Your task to perform on an android device: Open internet settings Image 0: 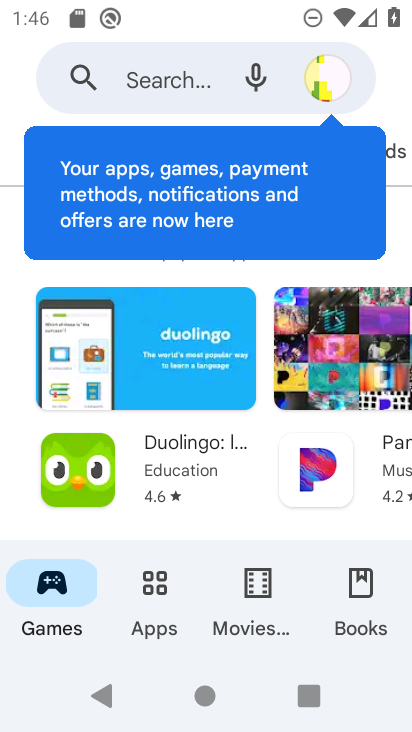
Step 0: press home button
Your task to perform on an android device: Open internet settings Image 1: 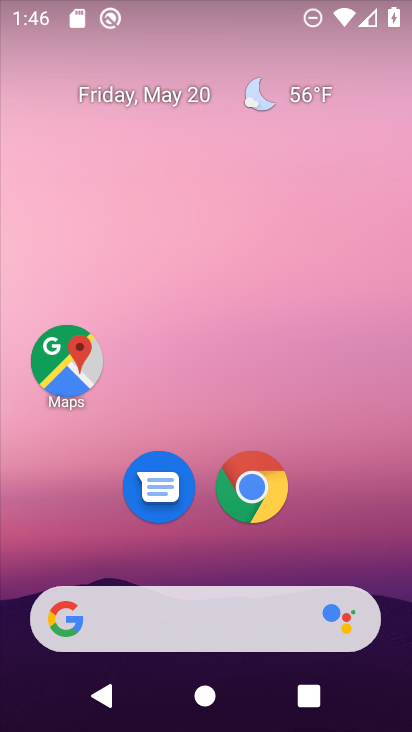
Step 1: drag from (221, 552) to (253, 166)
Your task to perform on an android device: Open internet settings Image 2: 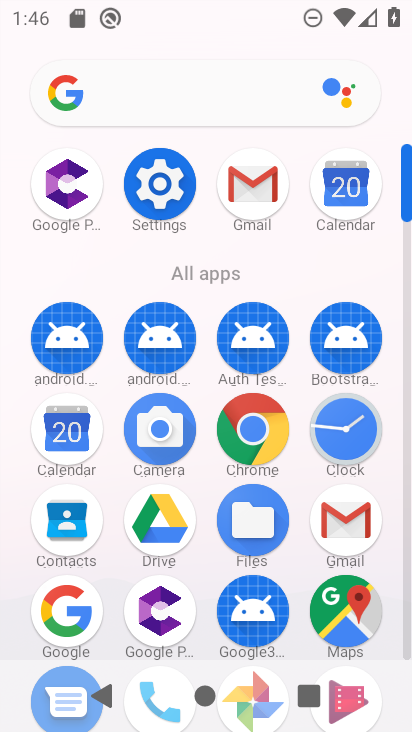
Step 2: click (151, 178)
Your task to perform on an android device: Open internet settings Image 3: 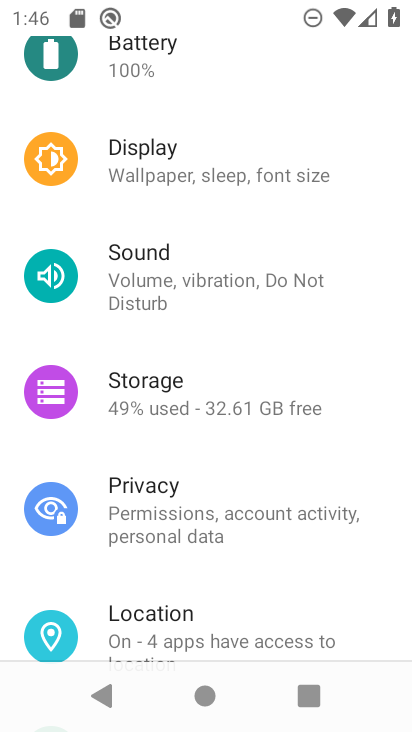
Step 3: drag from (196, 118) to (226, 579)
Your task to perform on an android device: Open internet settings Image 4: 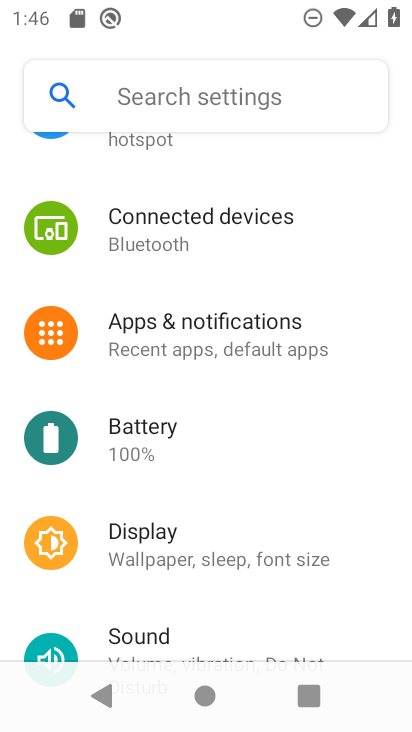
Step 4: drag from (225, 253) to (205, 647)
Your task to perform on an android device: Open internet settings Image 5: 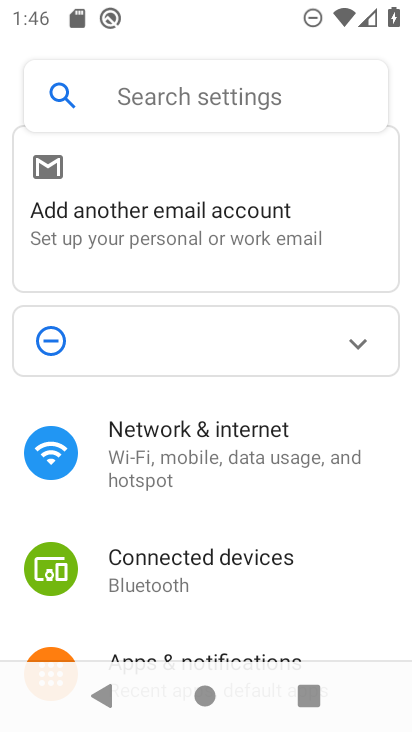
Step 5: click (184, 452)
Your task to perform on an android device: Open internet settings Image 6: 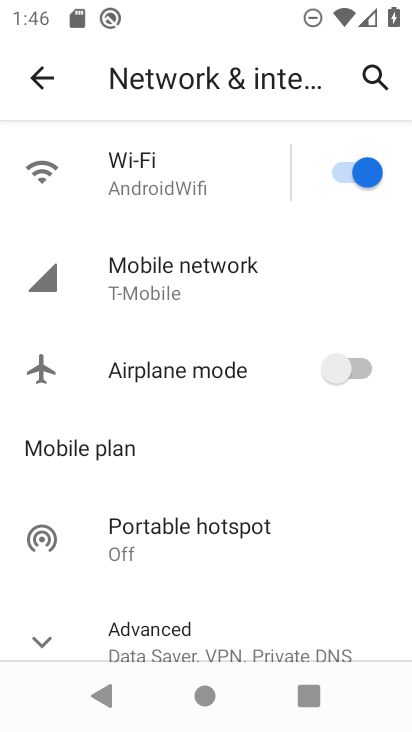
Step 6: click (46, 641)
Your task to perform on an android device: Open internet settings Image 7: 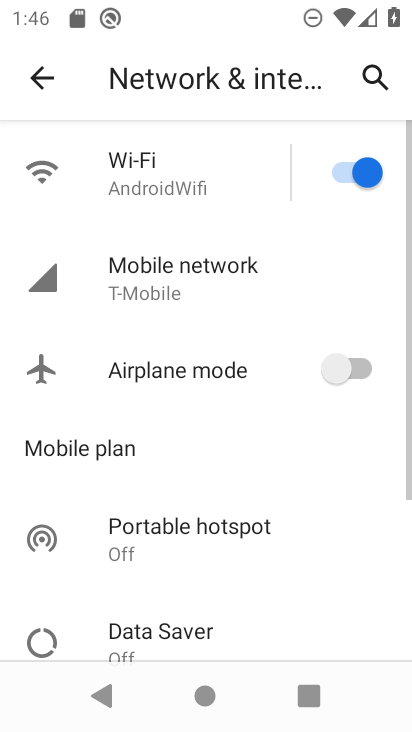
Step 7: task complete